Your task to perform on an android device: Checkthe settings for the Amazon Prime Music app Image 0: 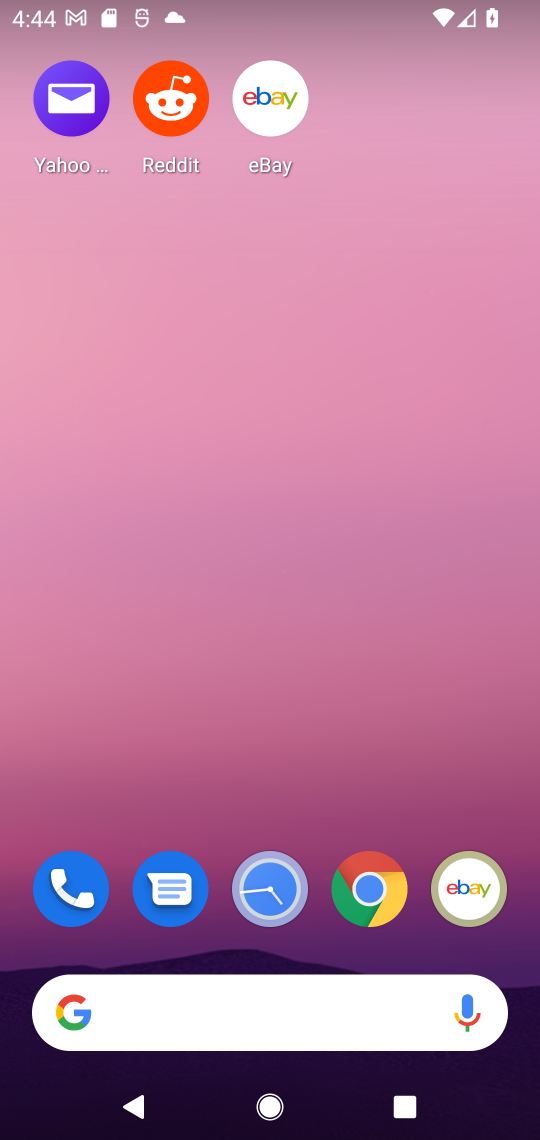
Step 0: drag from (428, 939) to (349, 302)
Your task to perform on an android device: Checkthe settings for the Amazon Prime Music app Image 1: 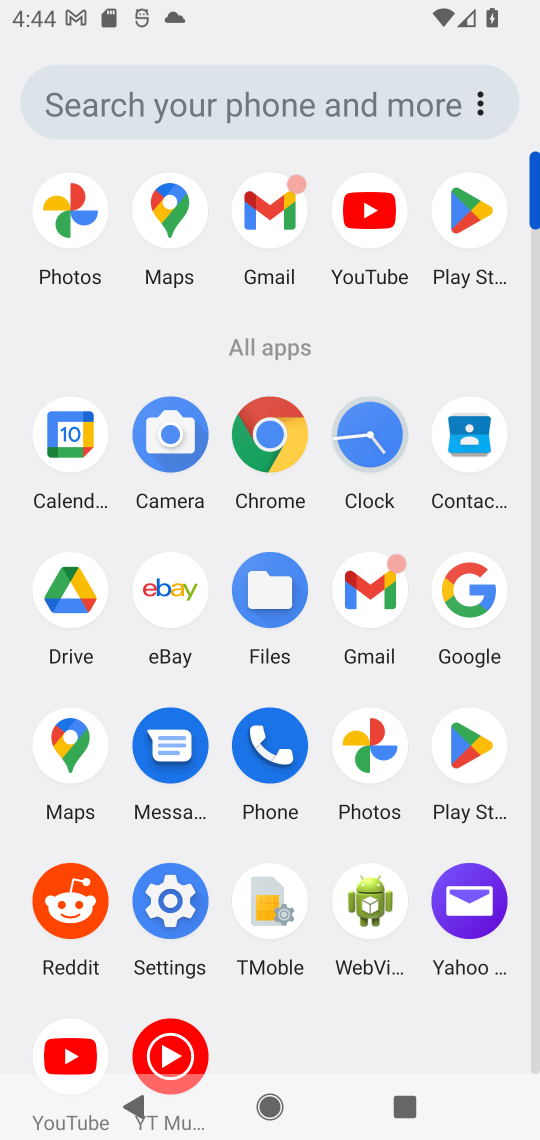
Step 1: click (477, 744)
Your task to perform on an android device: Checkthe settings for the Amazon Prime Music app Image 2: 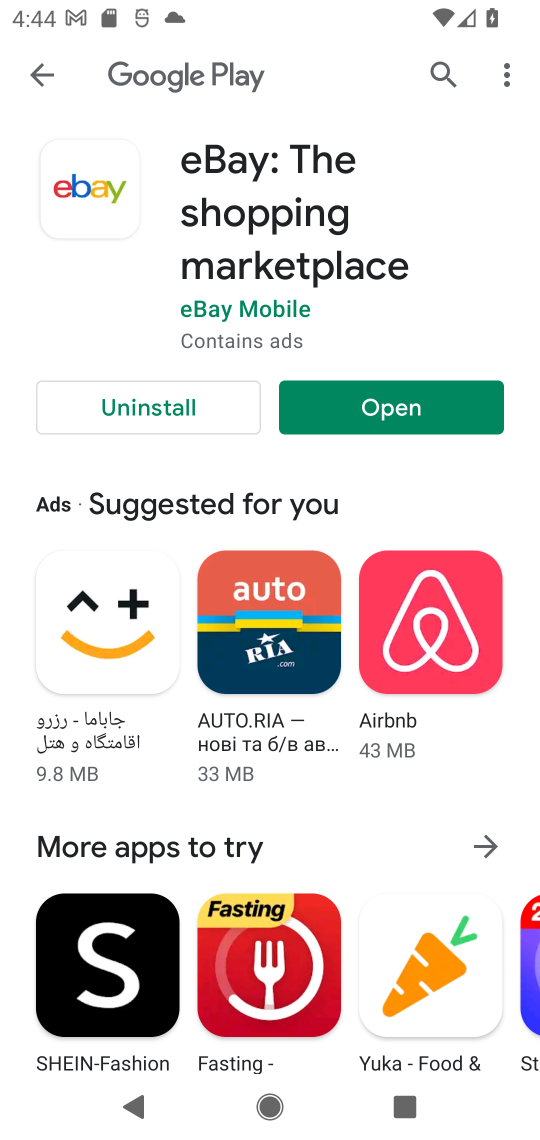
Step 2: click (430, 69)
Your task to perform on an android device: Checkthe settings for the Amazon Prime Music app Image 3: 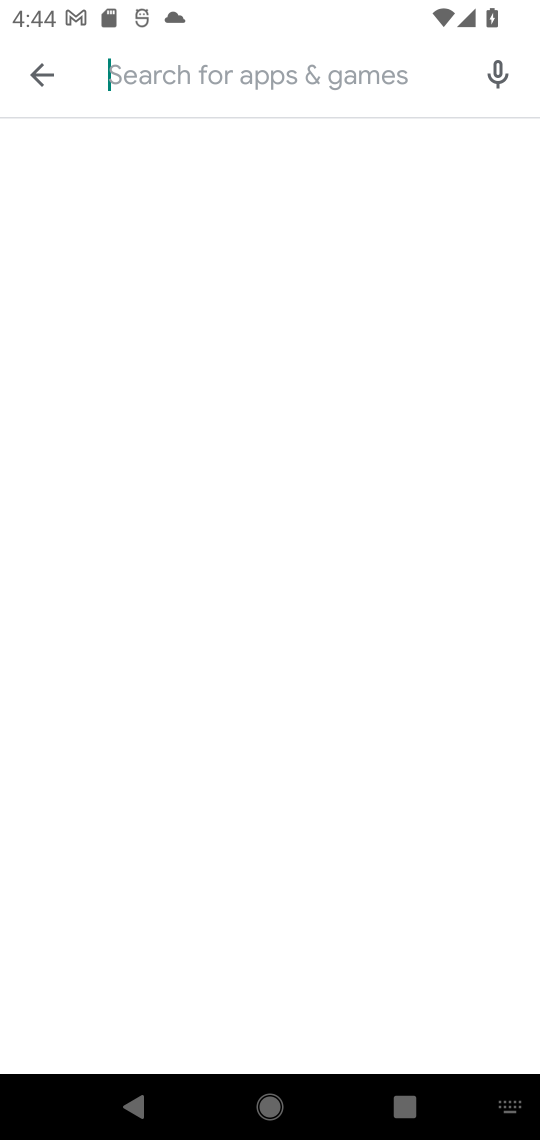
Step 3: type "Amazon Prime Music app"
Your task to perform on an android device: Checkthe settings for the Amazon Prime Music app Image 4: 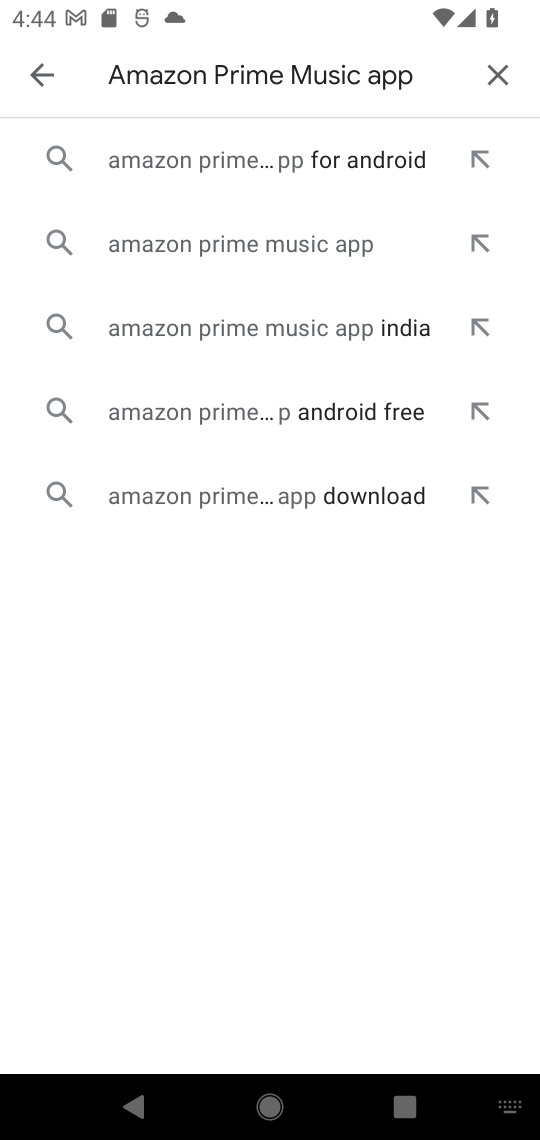
Step 4: click (212, 244)
Your task to perform on an android device: Checkthe settings for the Amazon Prime Music app Image 5: 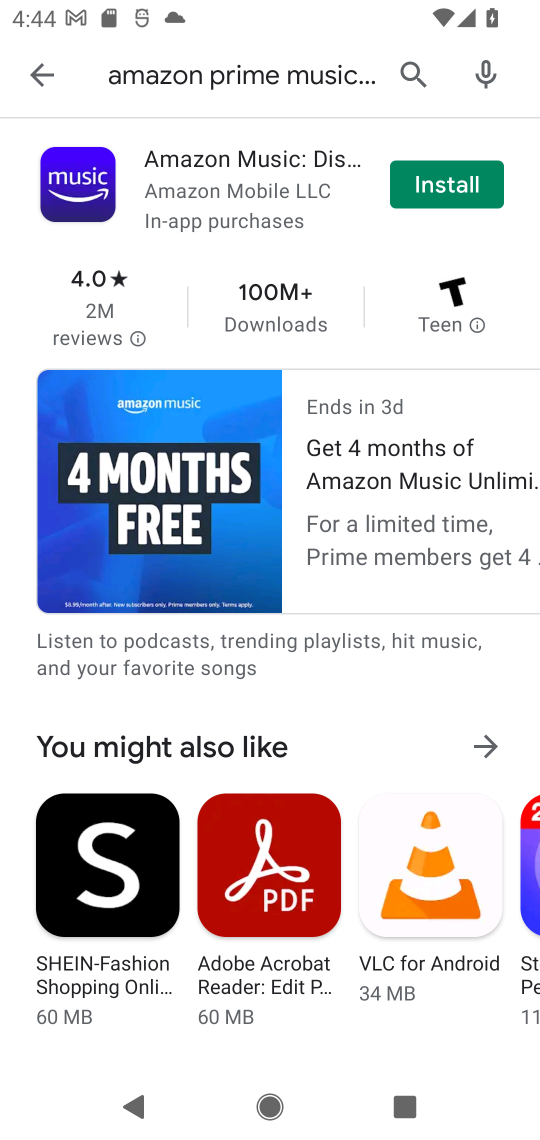
Step 5: click (446, 188)
Your task to perform on an android device: Checkthe settings for the Amazon Prime Music app Image 6: 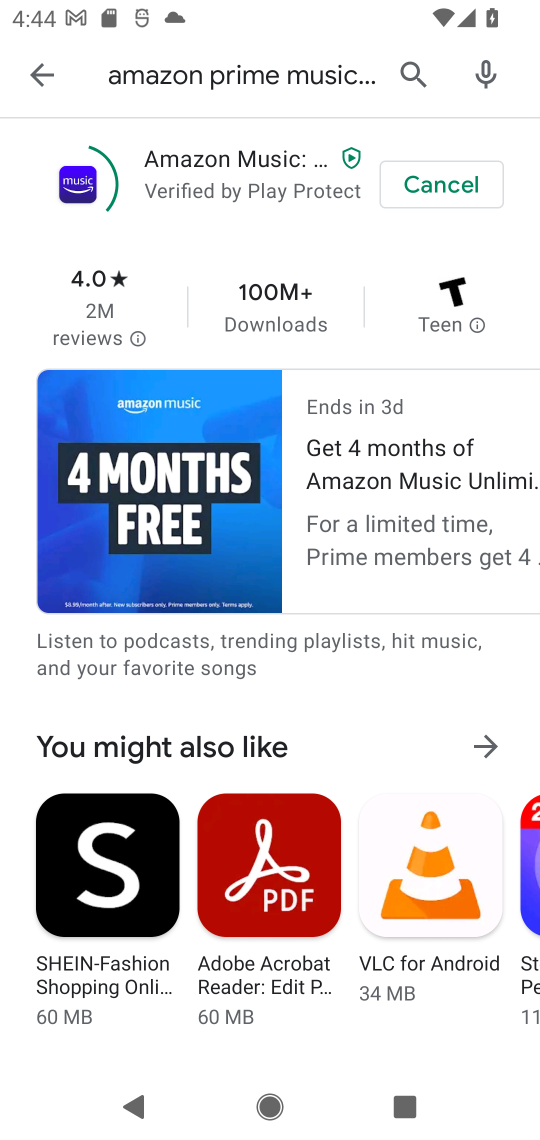
Step 6: click (446, 188)
Your task to perform on an android device: Checkthe settings for the Amazon Prime Music app Image 7: 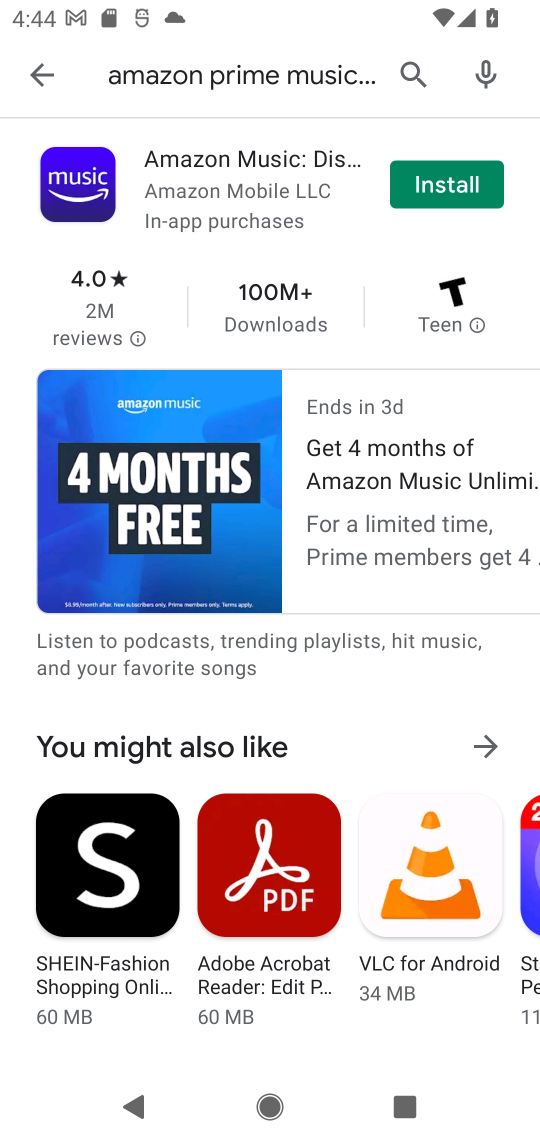
Step 7: click (446, 188)
Your task to perform on an android device: Checkthe settings for the Amazon Prime Music app Image 8: 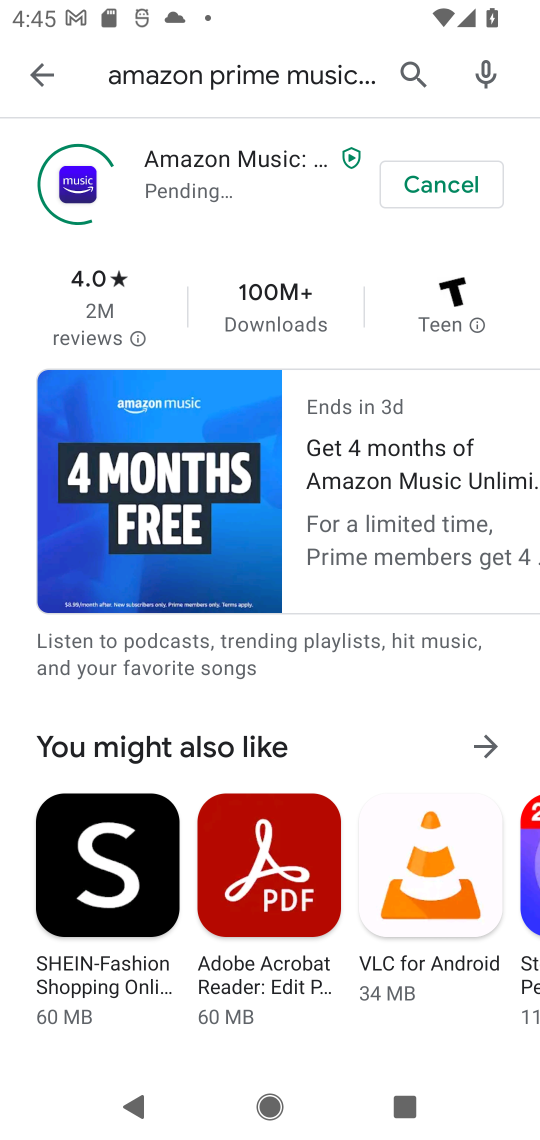
Step 8: click (446, 188)
Your task to perform on an android device: Checkthe settings for the Amazon Prime Music app Image 9: 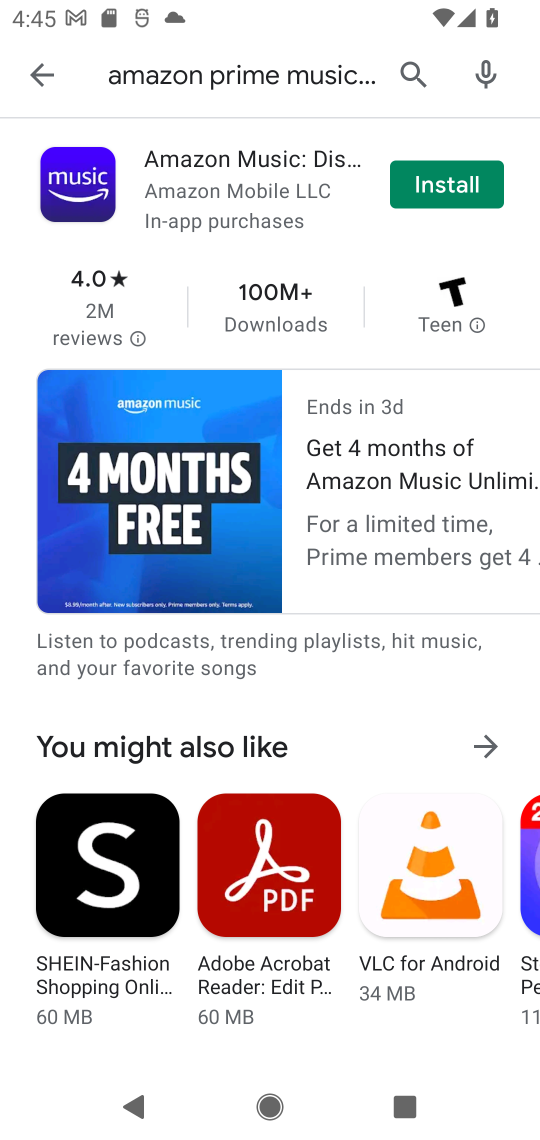
Step 9: click (446, 188)
Your task to perform on an android device: Checkthe settings for the Amazon Prime Music app Image 10: 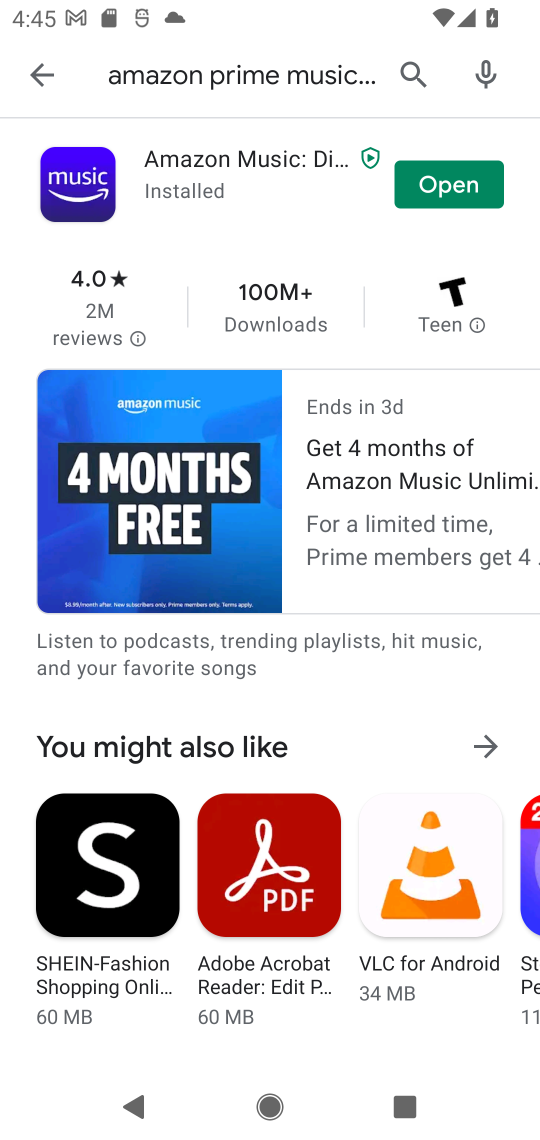
Step 10: click (441, 172)
Your task to perform on an android device: Checkthe settings for the Amazon Prime Music app Image 11: 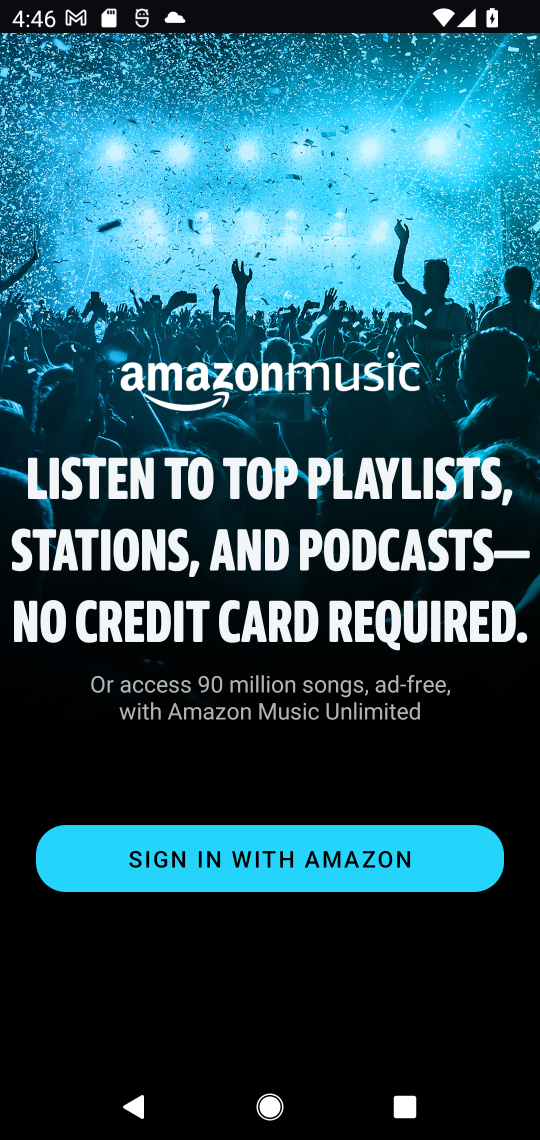
Step 11: press back button
Your task to perform on an android device: Checkthe settings for the Amazon Prime Music app Image 12: 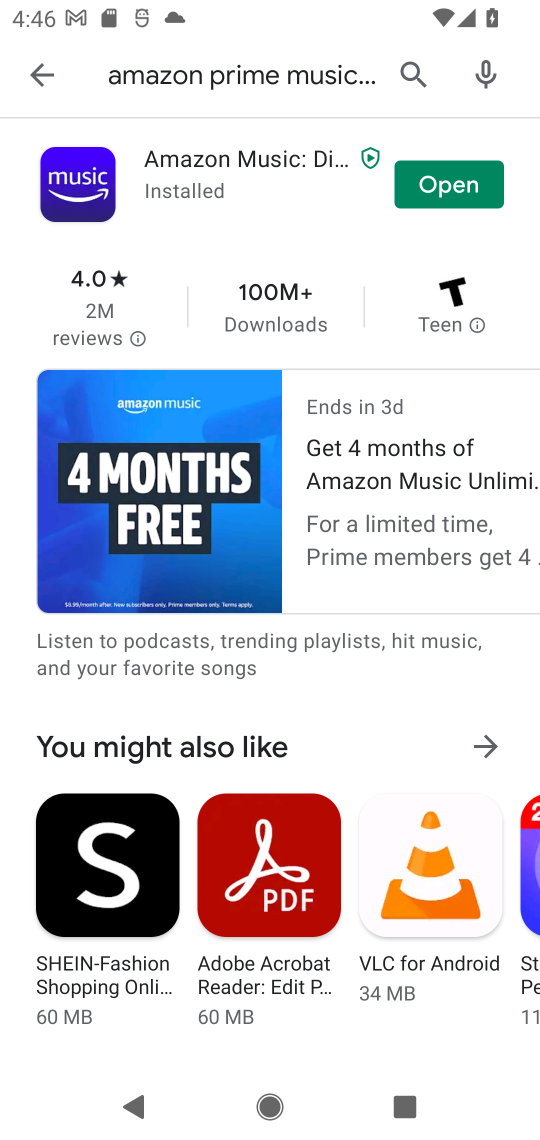
Step 12: click (435, 181)
Your task to perform on an android device: Checkthe settings for the Amazon Prime Music app Image 13: 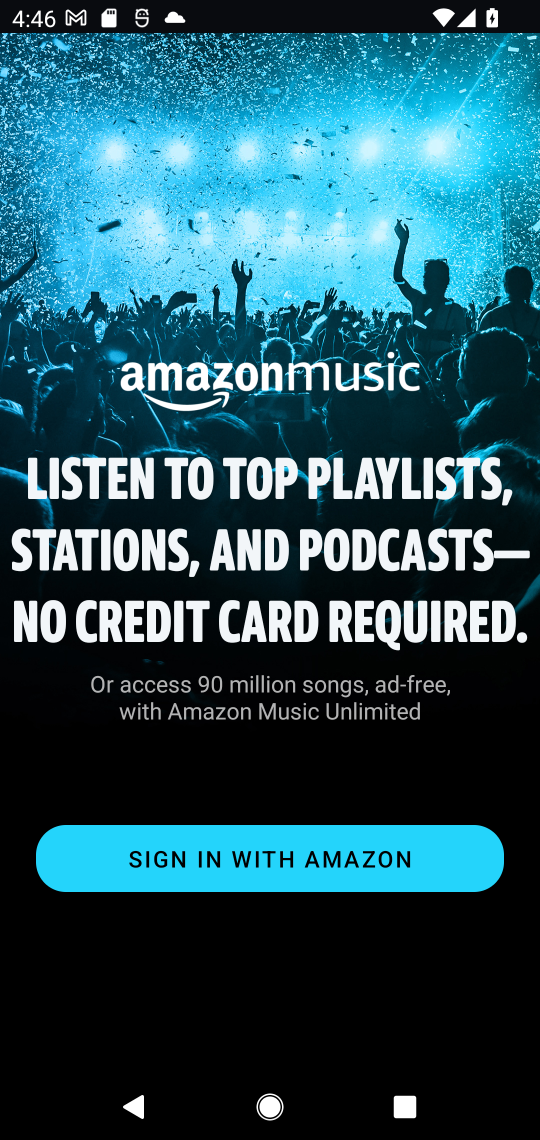
Step 13: task complete